Your task to perform on an android device: Open the map Image 0: 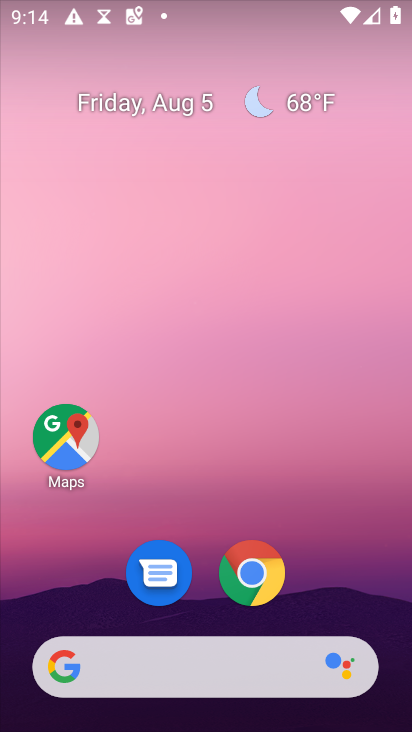
Step 0: click (69, 438)
Your task to perform on an android device: Open the map Image 1: 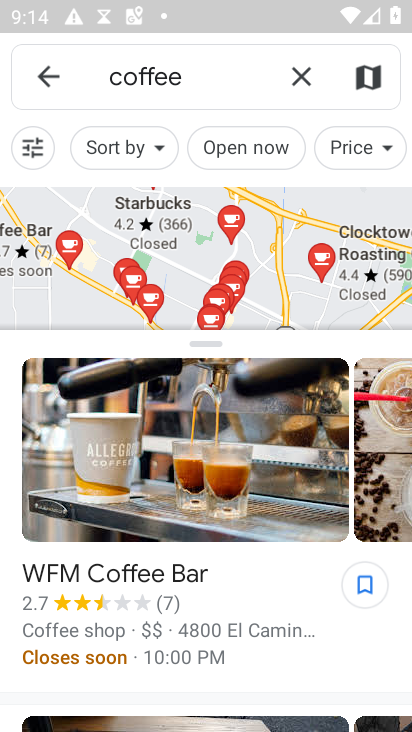
Step 1: click (298, 74)
Your task to perform on an android device: Open the map Image 2: 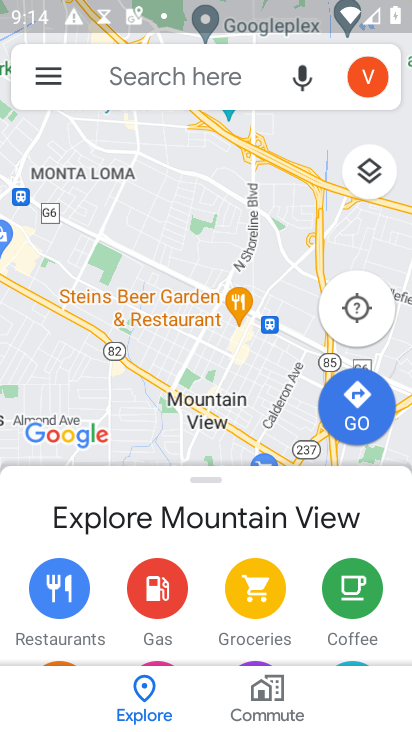
Step 2: task complete